Your task to perform on an android device: turn off wifi Image 0: 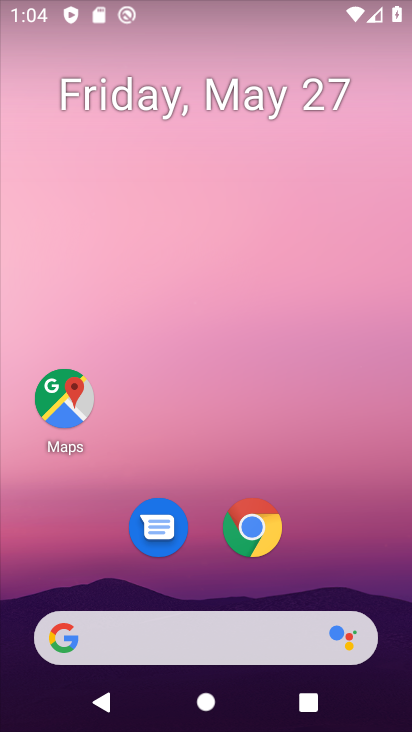
Step 0: drag from (265, 710) to (311, 22)
Your task to perform on an android device: turn off wifi Image 1: 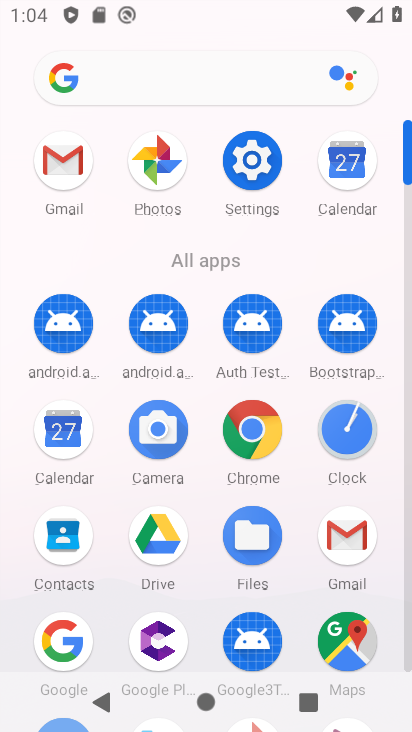
Step 1: click (263, 176)
Your task to perform on an android device: turn off wifi Image 2: 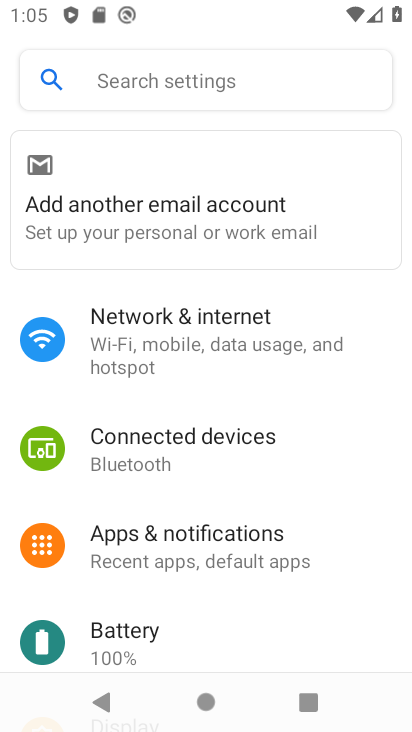
Step 2: click (257, 303)
Your task to perform on an android device: turn off wifi Image 3: 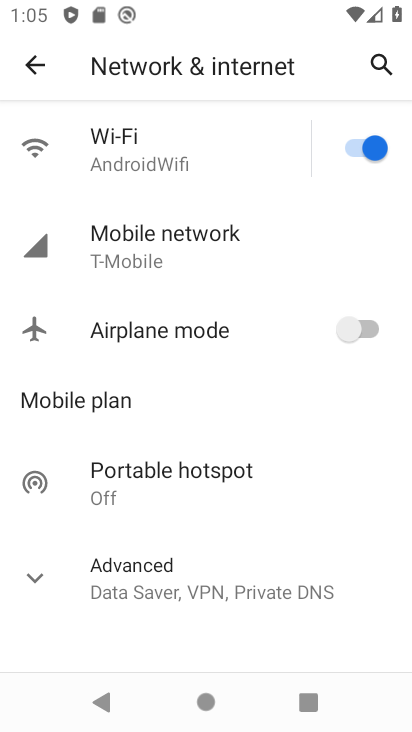
Step 3: click (368, 147)
Your task to perform on an android device: turn off wifi Image 4: 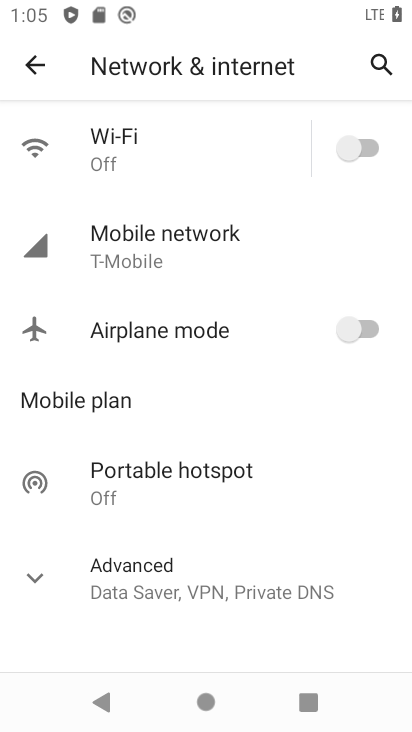
Step 4: task complete